Your task to perform on an android device: View the shopping cart on costco.com. Search for acer predator on costco.com, select the first entry, and add it to the cart. Image 0: 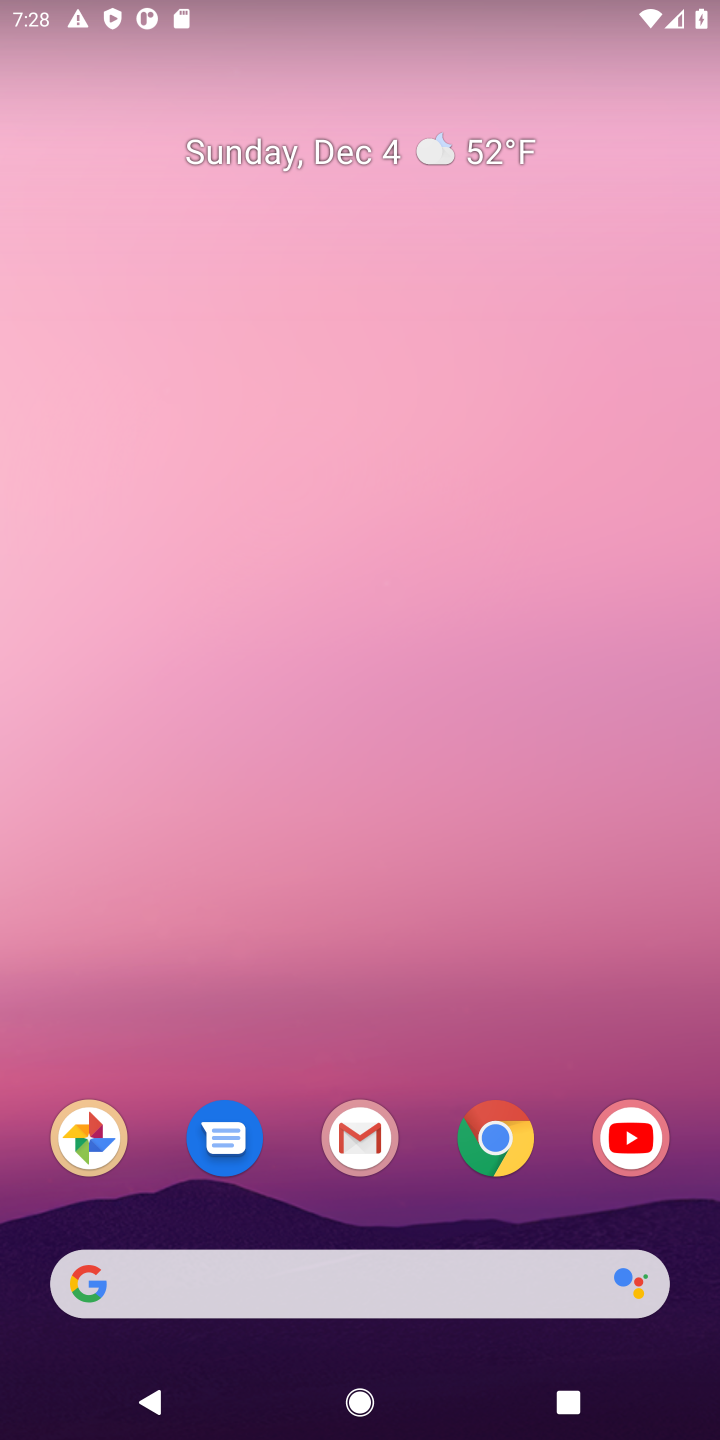
Step 0: click (481, 1134)
Your task to perform on an android device: View the shopping cart on costco.com. Search for acer predator on costco.com, select the first entry, and add it to the cart. Image 1: 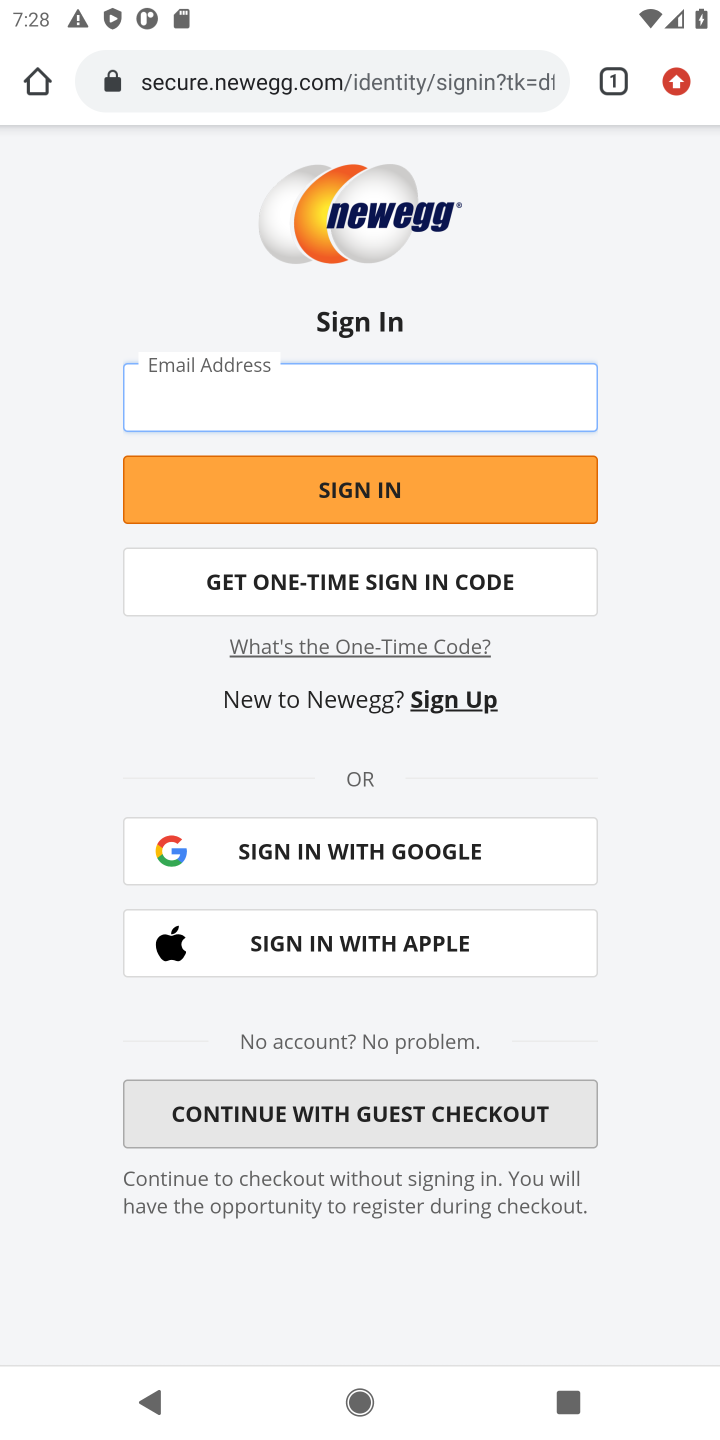
Step 1: click (333, 86)
Your task to perform on an android device: View the shopping cart on costco.com. Search for acer predator on costco.com, select the first entry, and add it to the cart. Image 2: 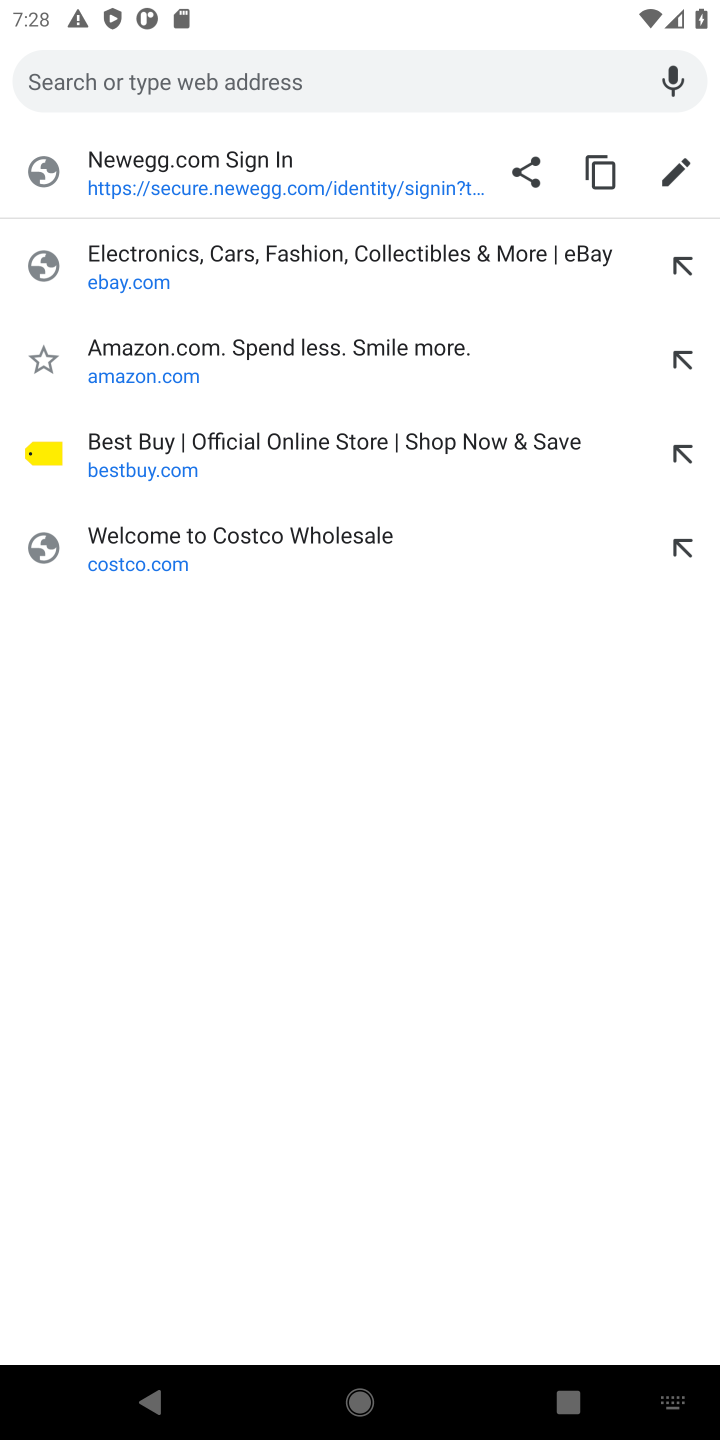
Step 2: click (135, 519)
Your task to perform on an android device: View the shopping cart on costco.com. Search for acer predator on costco.com, select the first entry, and add it to the cart. Image 3: 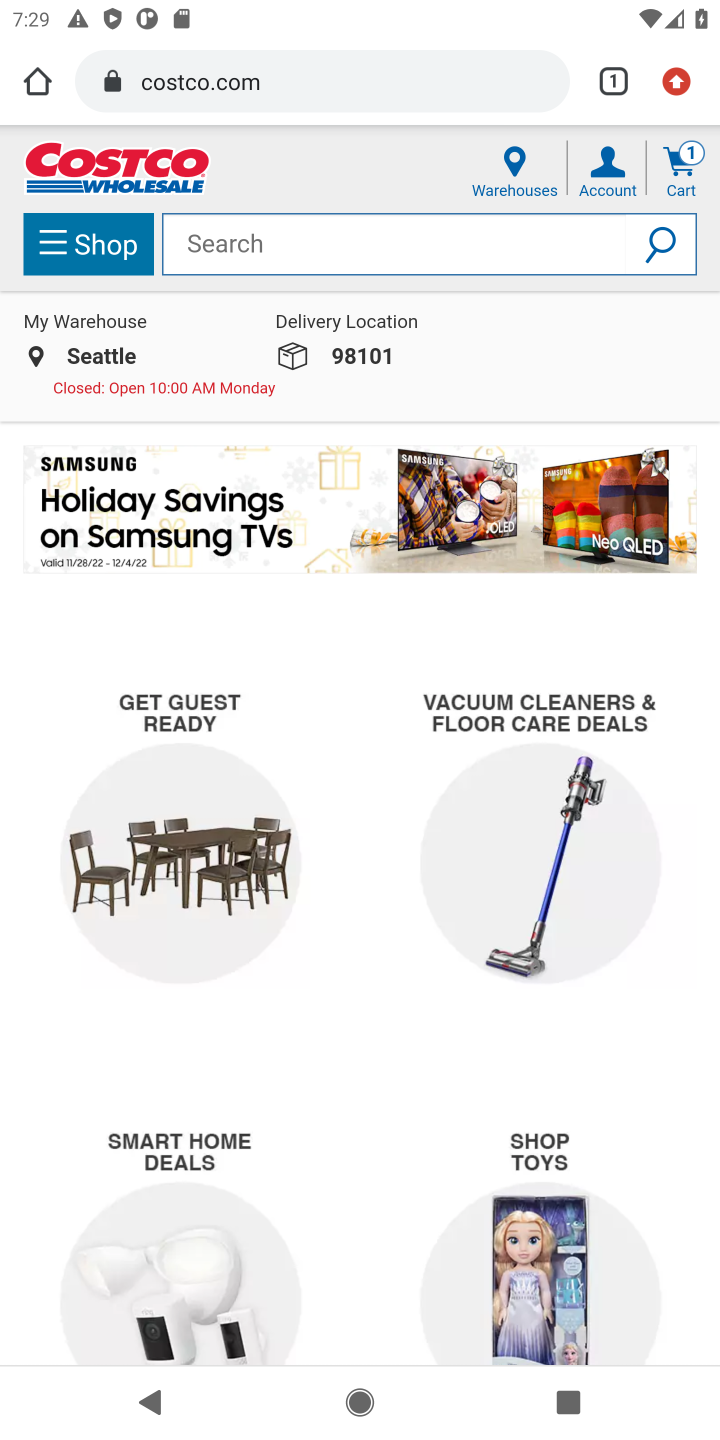
Step 3: click (636, 236)
Your task to perform on an android device: View the shopping cart on costco.com. Search for acer predator on costco.com, select the first entry, and add it to the cart. Image 4: 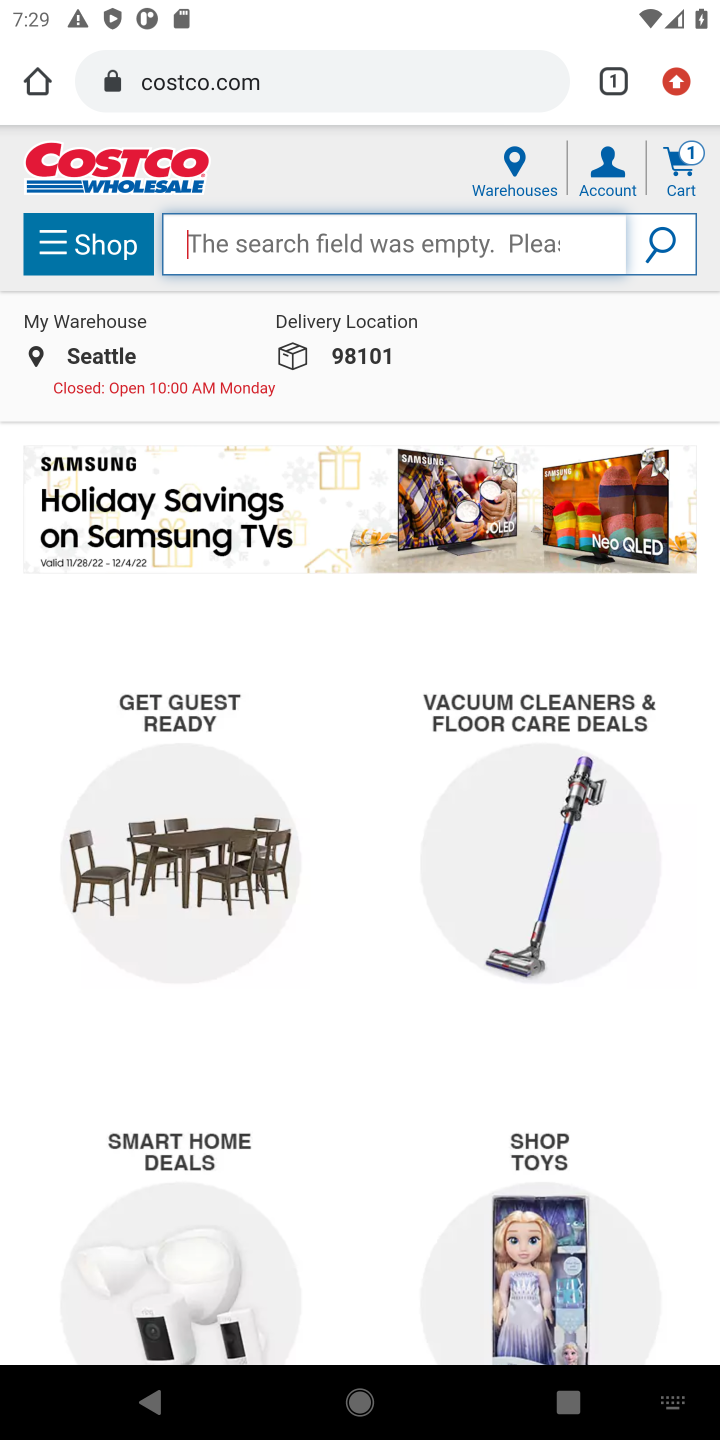
Step 4: press enter
Your task to perform on an android device: View the shopping cart on costco.com. Search for acer predator on costco.com, select the first entry, and add it to the cart. Image 5: 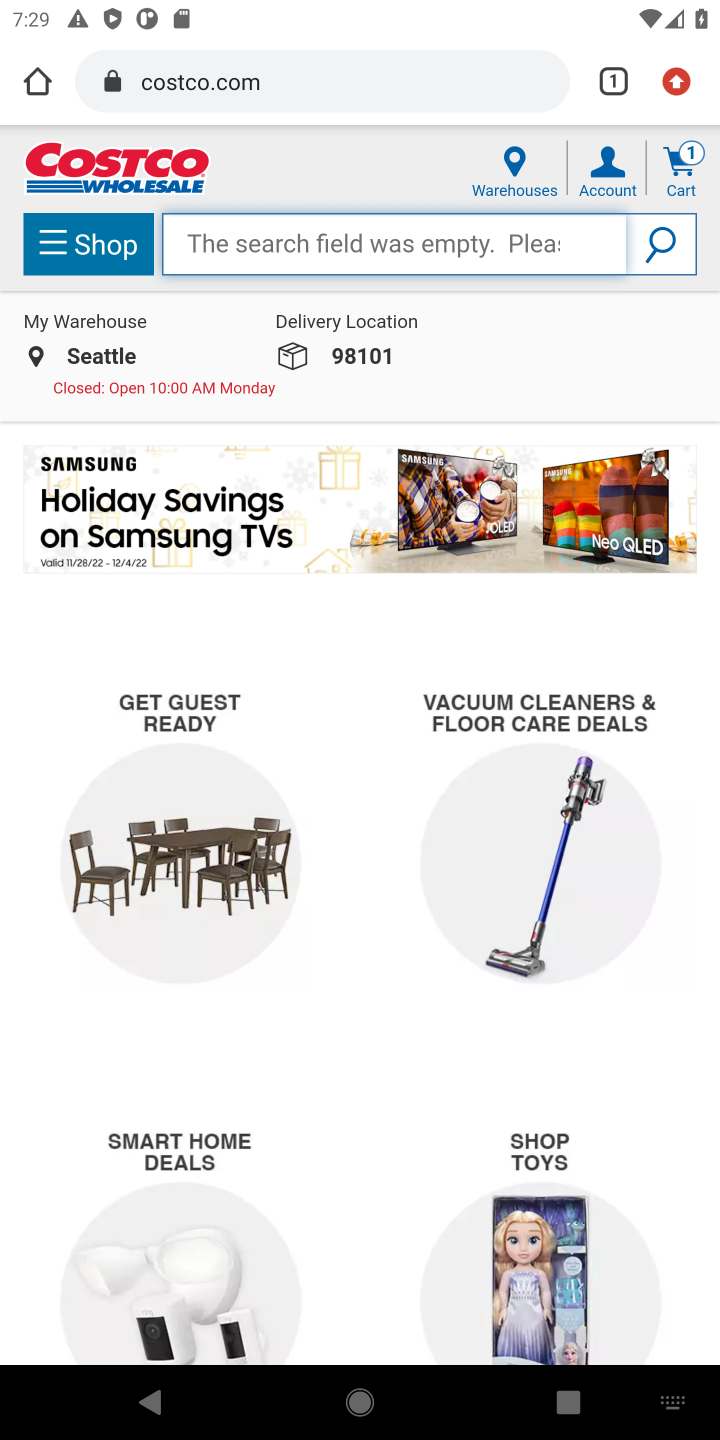
Step 5: type "acer predator"
Your task to perform on an android device: View the shopping cart on costco.com. Search for acer predator on costco.com, select the first entry, and add it to the cart. Image 6: 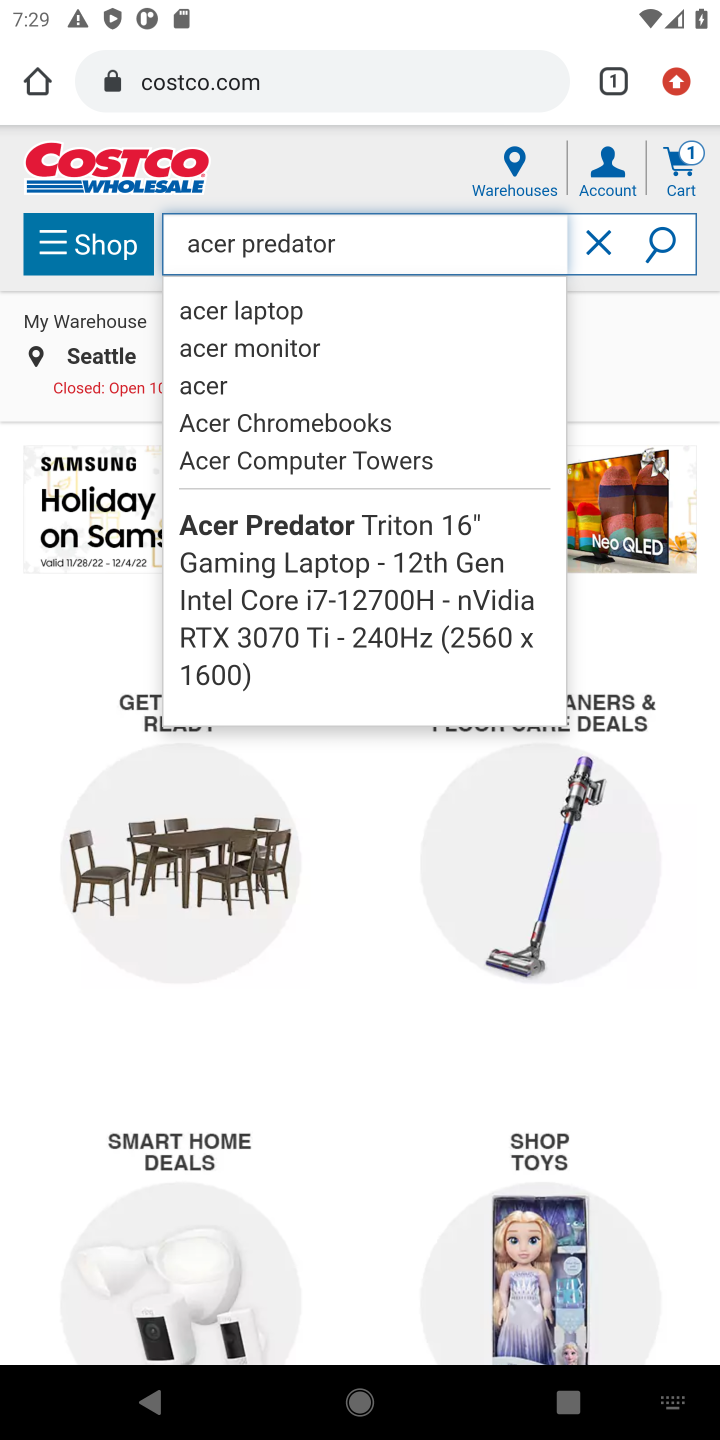
Step 6: click (658, 236)
Your task to perform on an android device: View the shopping cart on costco.com. Search for acer predator on costco.com, select the first entry, and add it to the cart. Image 7: 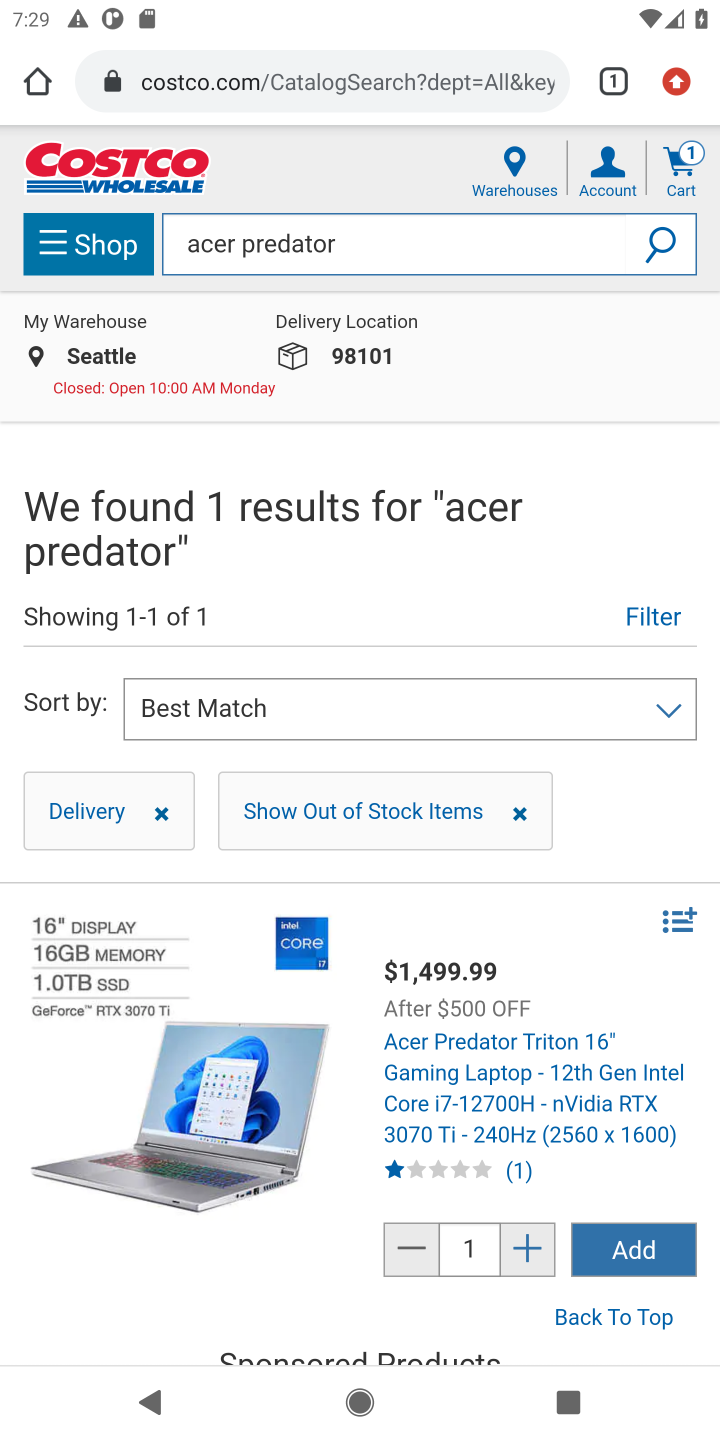
Step 7: click (89, 1077)
Your task to perform on an android device: View the shopping cart on costco.com. Search for acer predator on costco.com, select the first entry, and add it to the cart. Image 8: 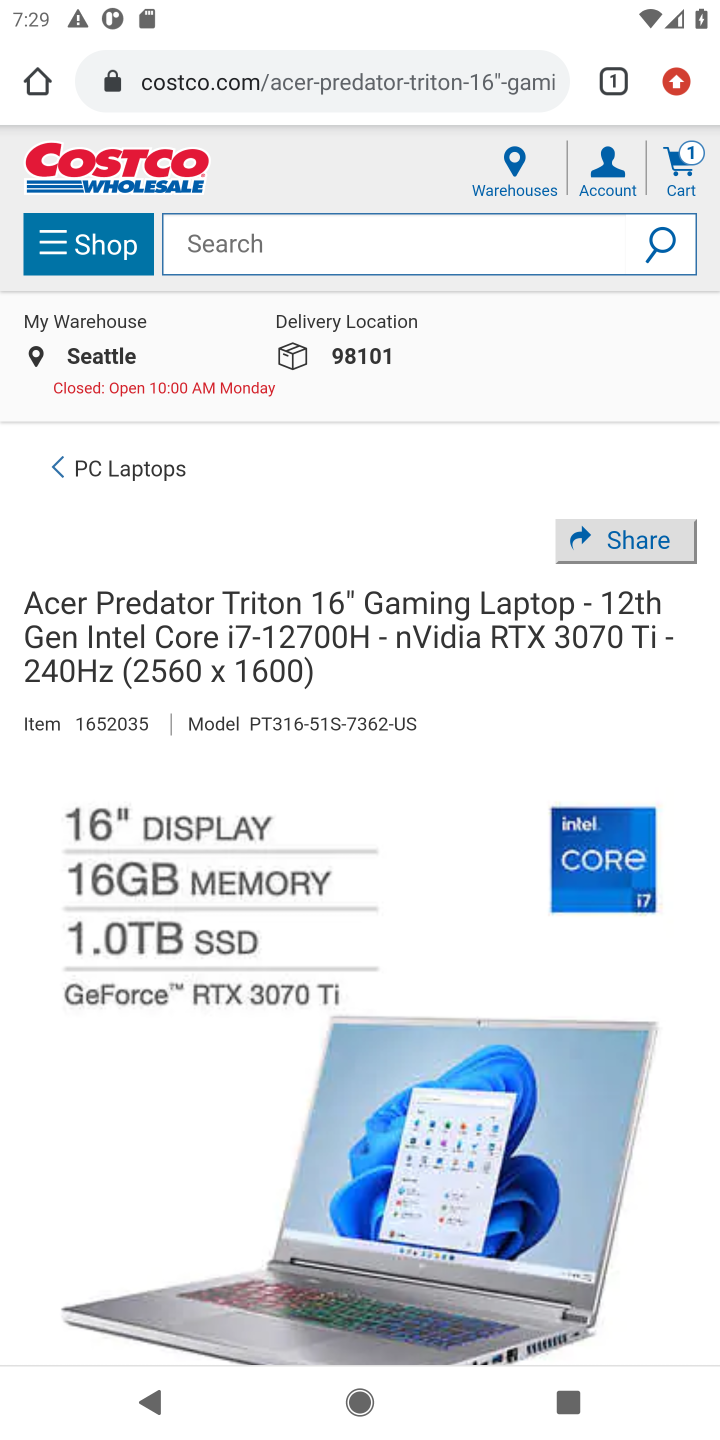
Step 8: drag from (281, 1003) to (389, 296)
Your task to perform on an android device: View the shopping cart on costco.com. Search for acer predator on costco.com, select the first entry, and add it to the cart. Image 9: 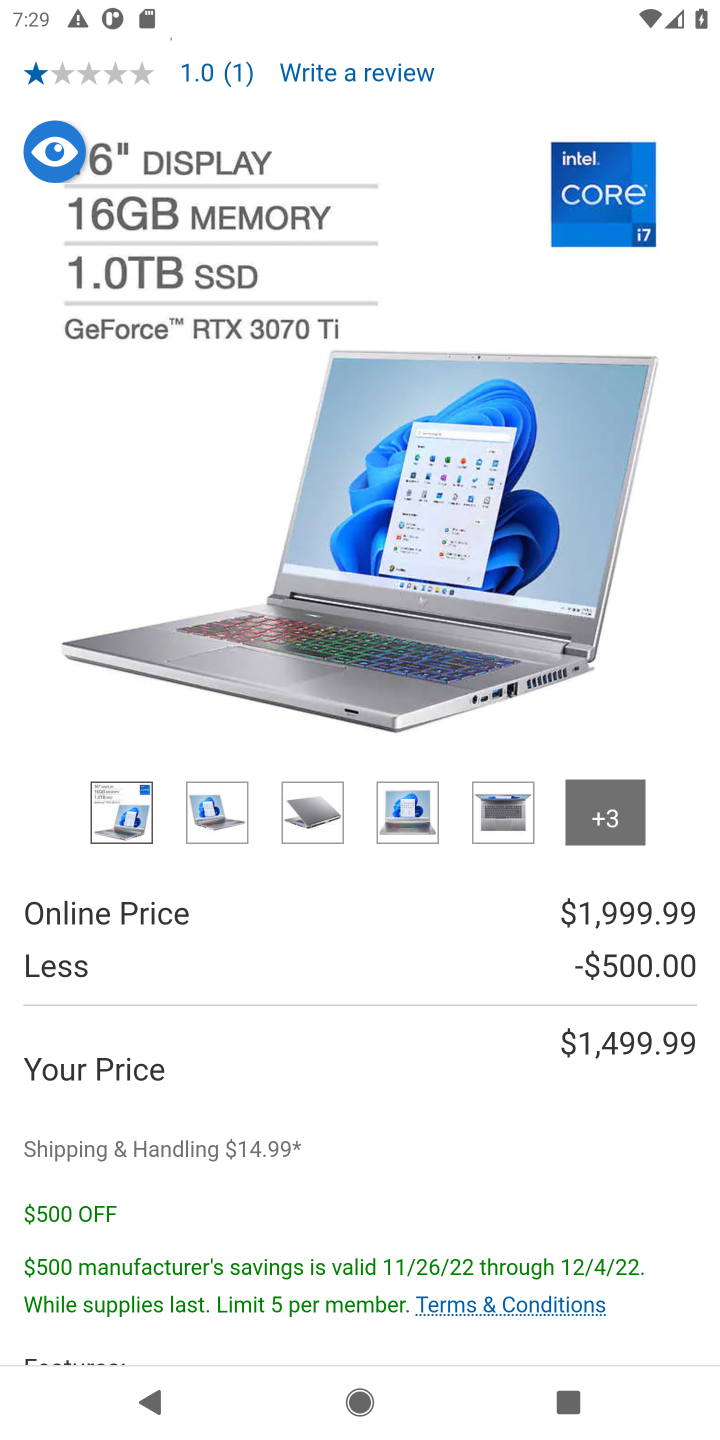
Step 9: drag from (490, 1100) to (425, 409)
Your task to perform on an android device: View the shopping cart on costco.com. Search for acer predator on costco.com, select the first entry, and add it to the cart. Image 10: 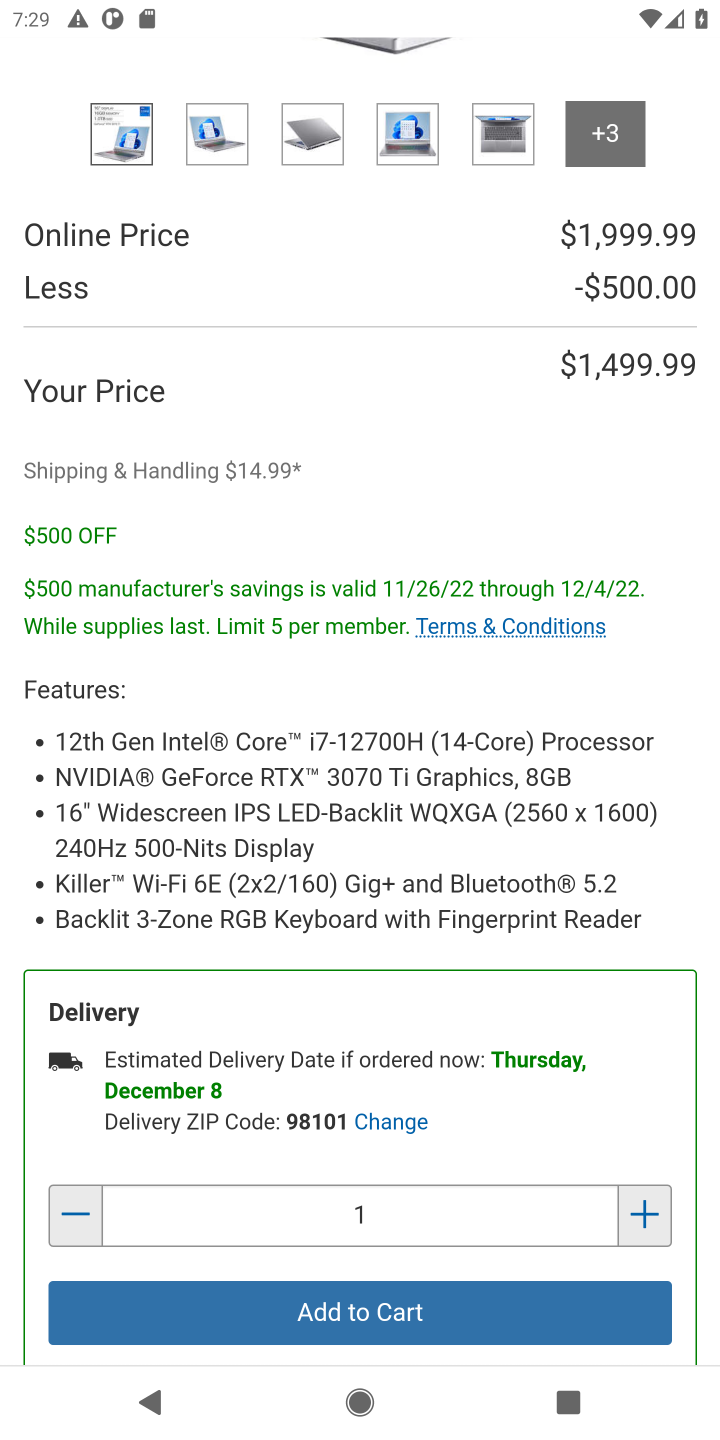
Step 10: click (355, 1317)
Your task to perform on an android device: View the shopping cart on costco.com. Search for acer predator on costco.com, select the first entry, and add it to the cart. Image 11: 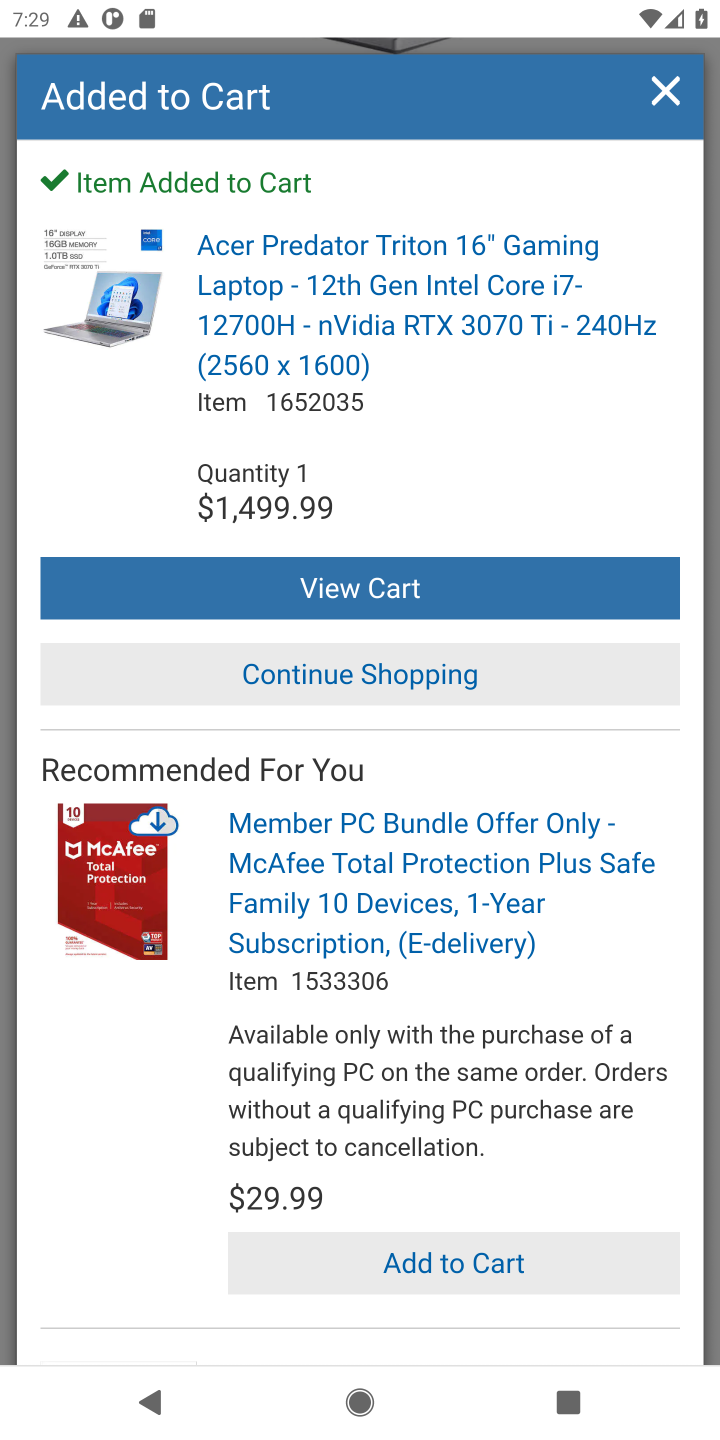
Step 11: click (373, 584)
Your task to perform on an android device: View the shopping cart on costco.com. Search for acer predator on costco.com, select the first entry, and add it to the cart. Image 12: 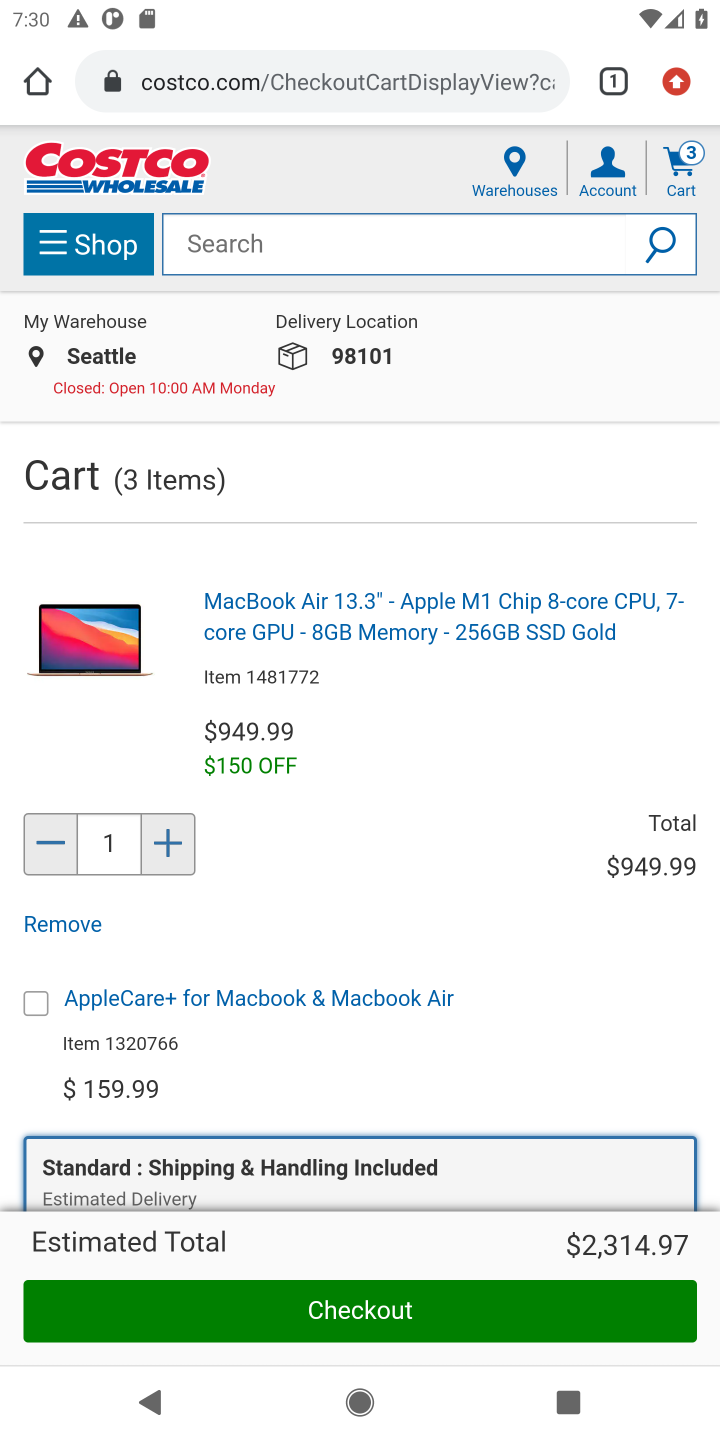
Step 12: task complete